Your task to perform on an android device: Go to Google Image 0: 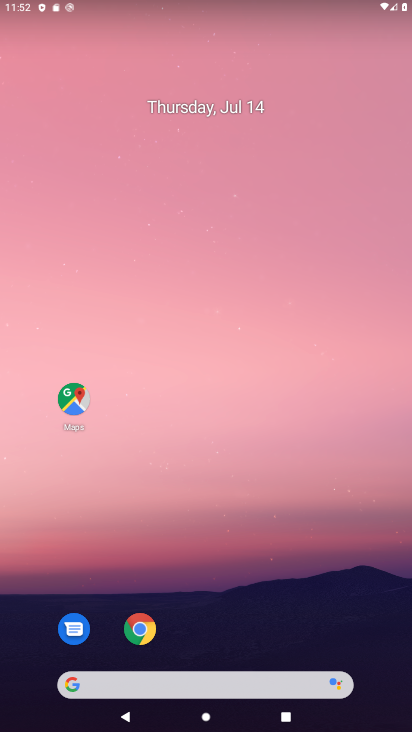
Step 0: drag from (309, 566) to (234, 0)
Your task to perform on an android device: Go to Google Image 1: 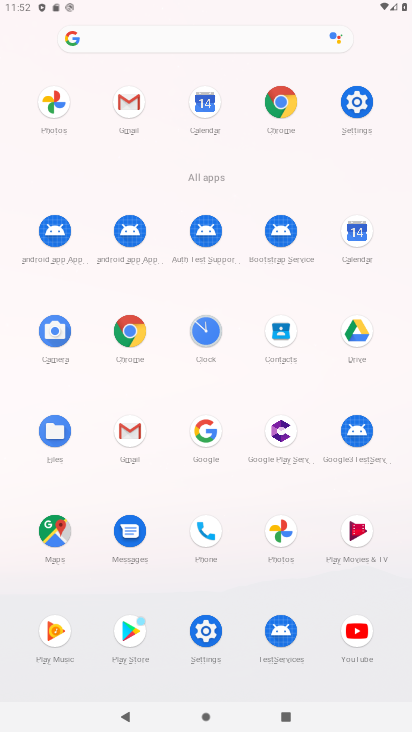
Step 1: click (218, 430)
Your task to perform on an android device: Go to Google Image 2: 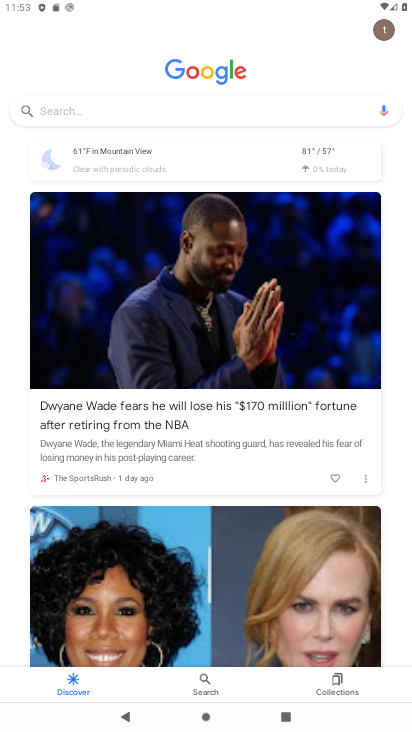
Step 2: task complete